Your task to perform on an android device: Open the map Image 0: 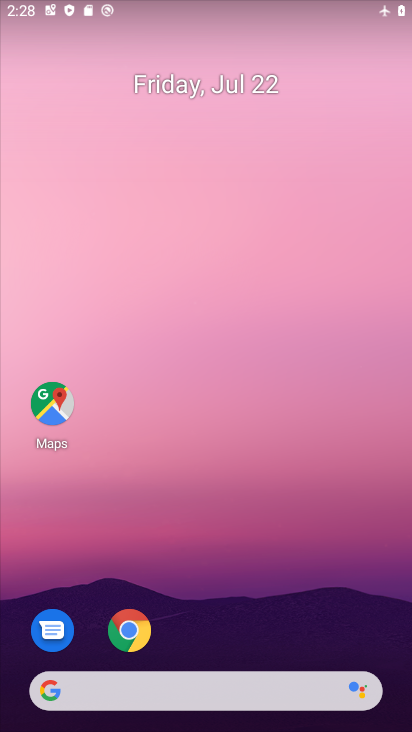
Step 0: click (53, 406)
Your task to perform on an android device: Open the map Image 1: 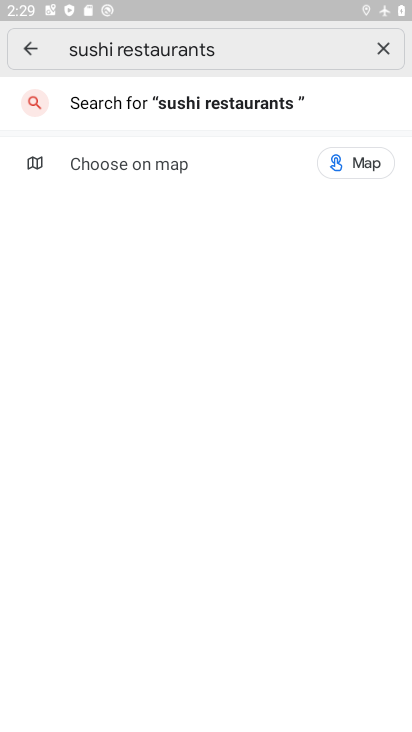
Step 1: click (23, 43)
Your task to perform on an android device: Open the map Image 2: 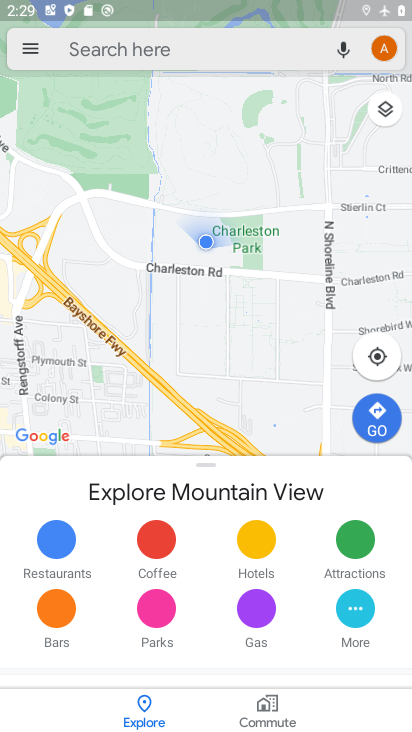
Step 2: task complete